Your task to perform on an android device: Open CNN.com Image 0: 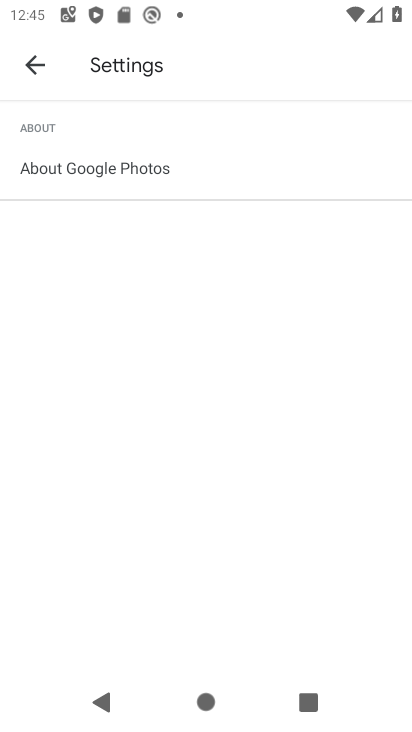
Step 0: press home button
Your task to perform on an android device: Open CNN.com Image 1: 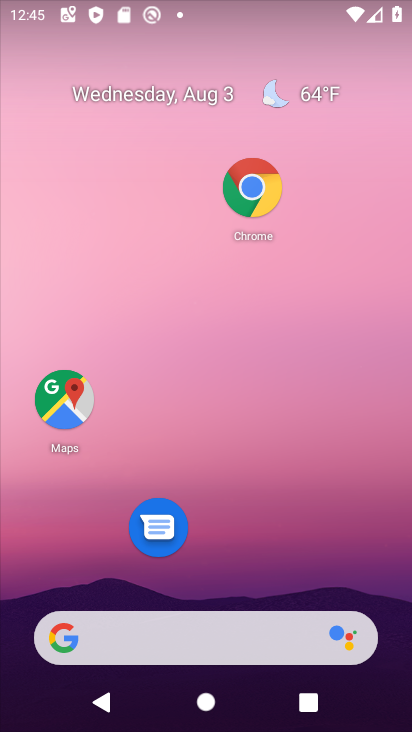
Step 1: click (267, 217)
Your task to perform on an android device: Open CNN.com Image 2: 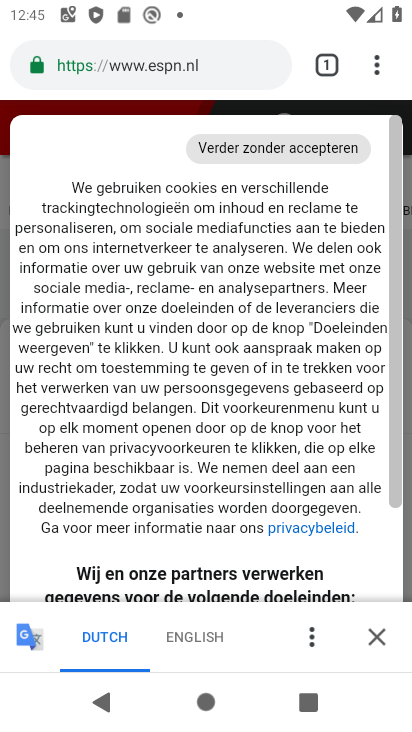
Step 2: click (173, 68)
Your task to perform on an android device: Open CNN.com Image 3: 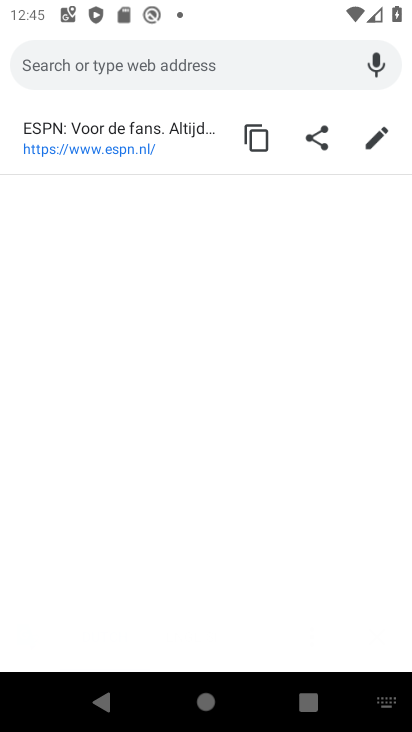
Step 3: type ""
Your task to perform on an android device: Open CNN.com Image 4: 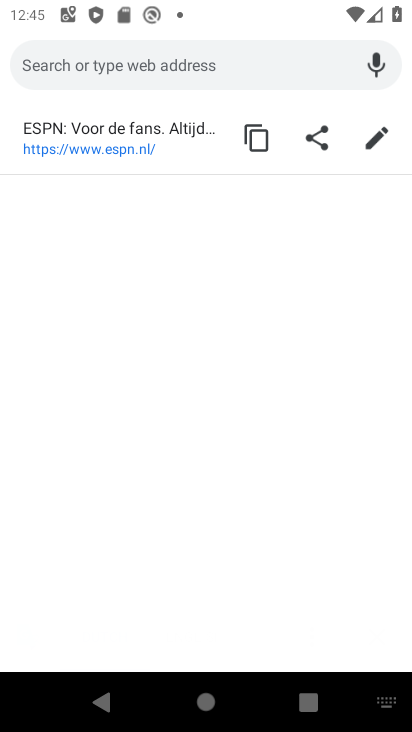
Step 4: type "CNN.com"
Your task to perform on an android device: Open CNN.com Image 5: 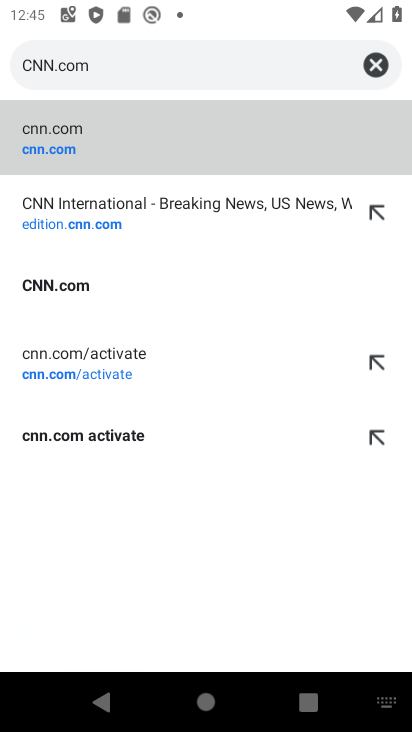
Step 5: click (115, 134)
Your task to perform on an android device: Open CNN.com Image 6: 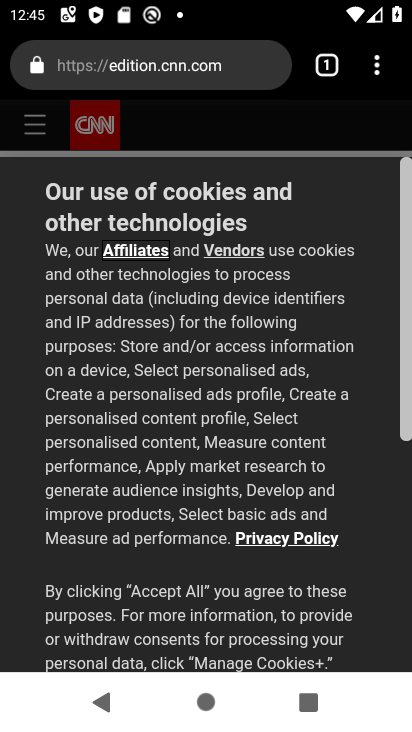
Step 6: task complete